Your task to perform on an android device: When is my next meeting? Image 0: 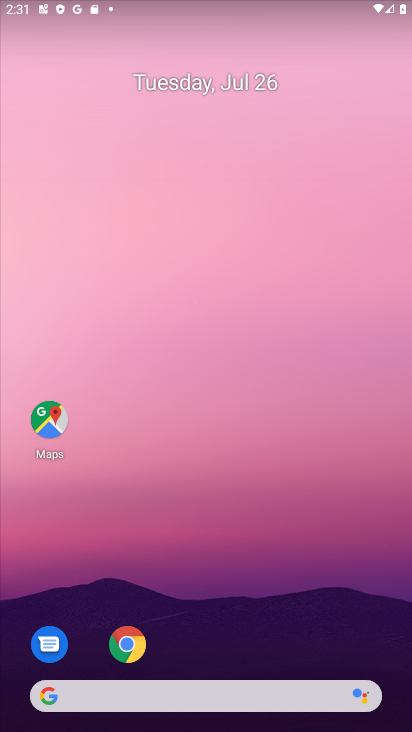
Step 0: drag from (219, 696) to (219, 88)
Your task to perform on an android device: When is my next meeting? Image 1: 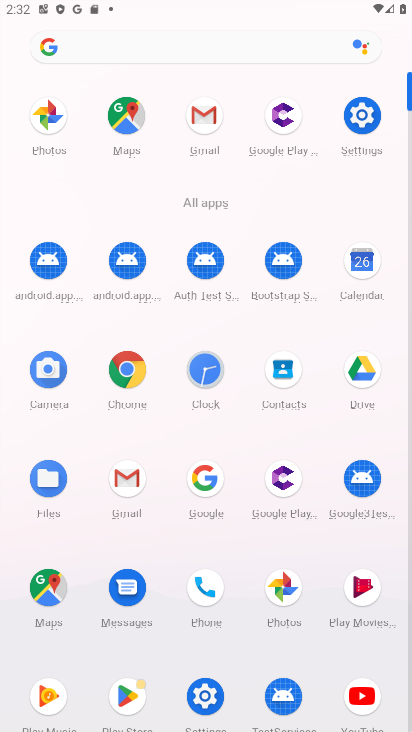
Step 1: click (353, 260)
Your task to perform on an android device: When is my next meeting? Image 2: 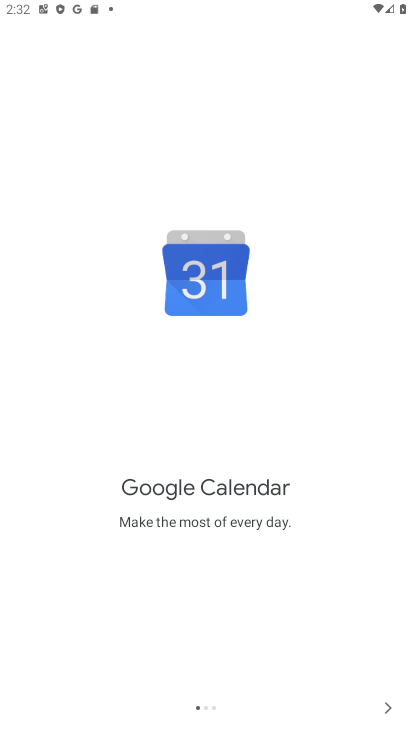
Step 2: click (388, 702)
Your task to perform on an android device: When is my next meeting? Image 3: 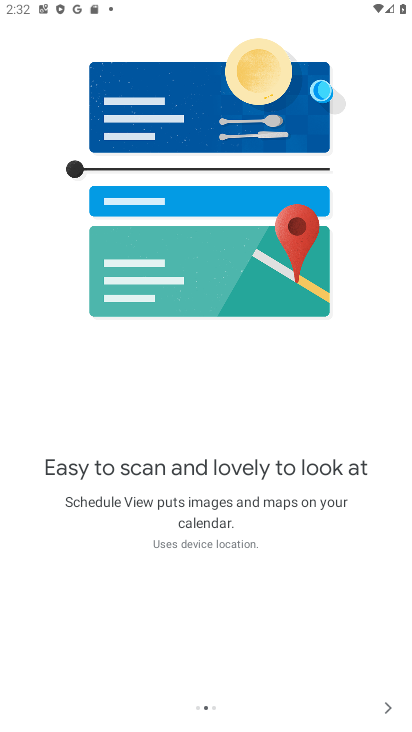
Step 3: click (388, 701)
Your task to perform on an android device: When is my next meeting? Image 4: 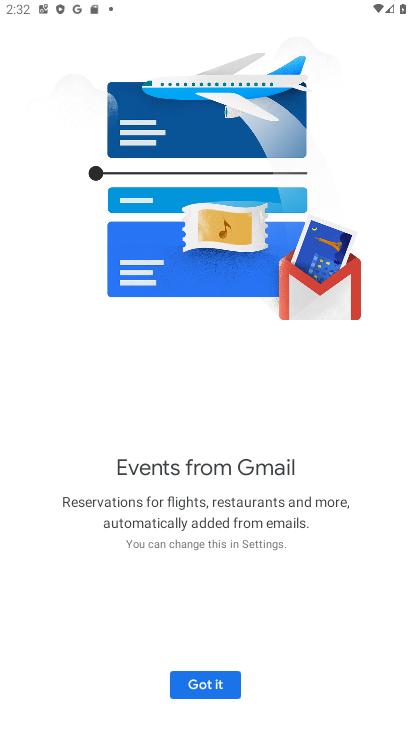
Step 4: click (222, 682)
Your task to perform on an android device: When is my next meeting? Image 5: 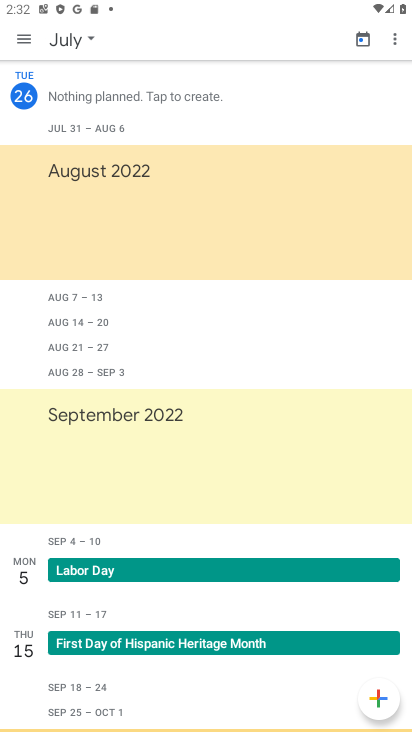
Step 5: click (17, 42)
Your task to perform on an android device: When is my next meeting? Image 6: 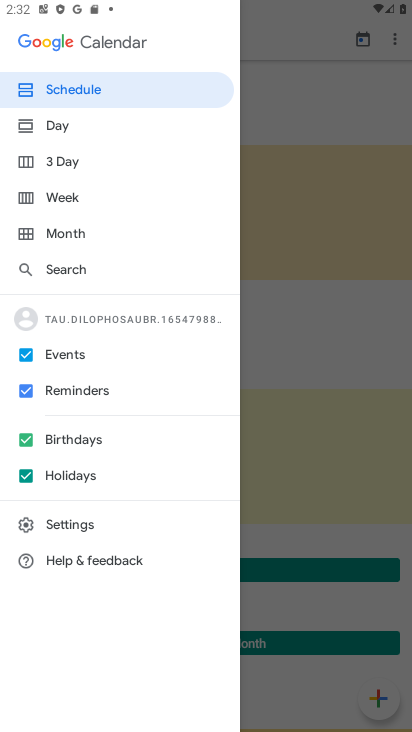
Step 6: click (68, 193)
Your task to perform on an android device: When is my next meeting? Image 7: 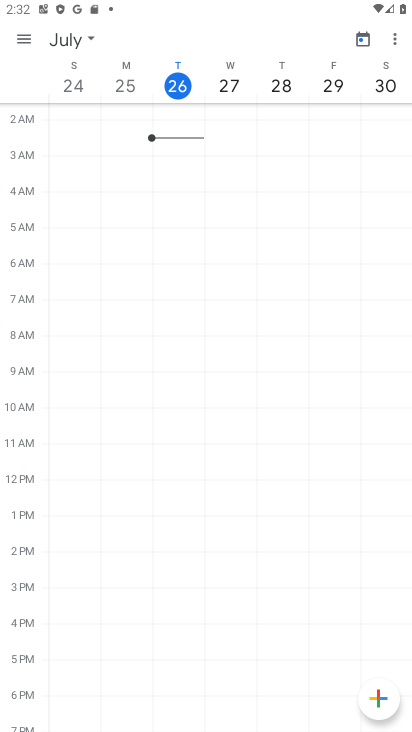
Step 7: drag from (368, 90) to (43, 86)
Your task to perform on an android device: When is my next meeting? Image 8: 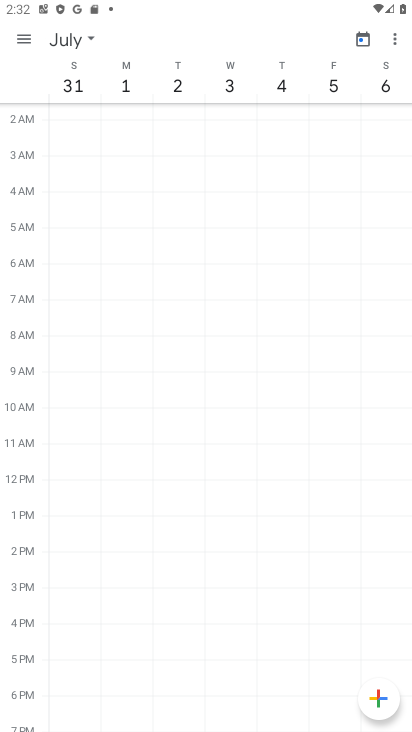
Step 8: drag from (72, 81) to (339, 94)
Your task to perform on an android device: When is my next meeting? Image 9: 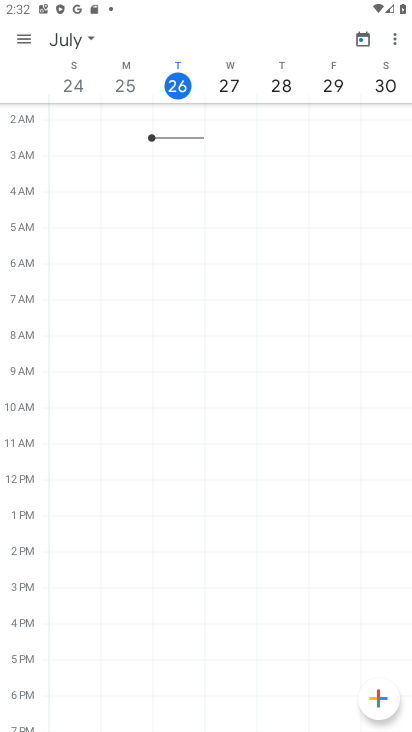
Step 9: click (221, 84)
Your task to perform on an android device: When is my next meeting? Image 10: 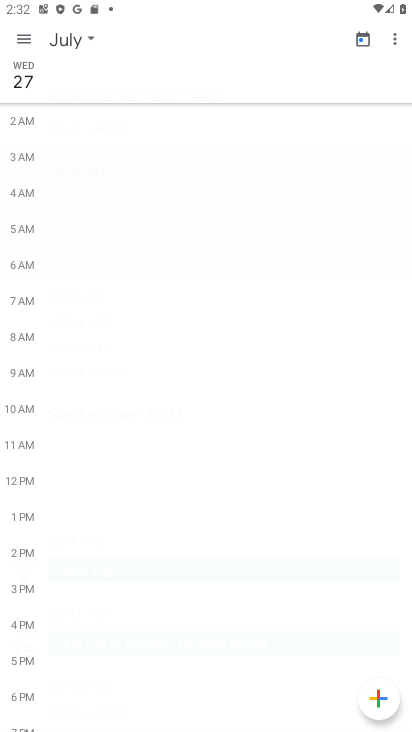
Step 10: click (291, 83)
Your task to perform on an android device: When is my next meeting? Image 11: 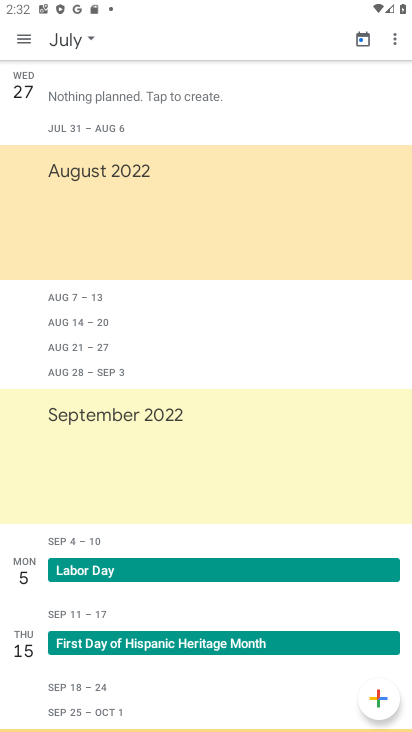
Step 11: task complete